Your task to perform on an android device: turn on location history Image 0: 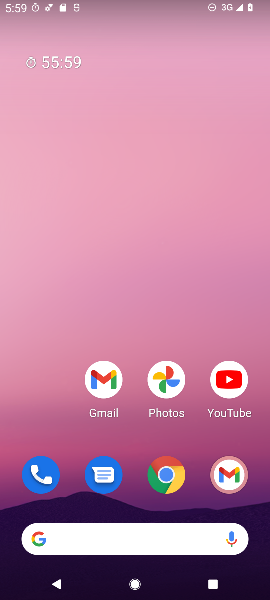
Step 0: press home button
Your task to perform on an android device: turn on location history Image 1: 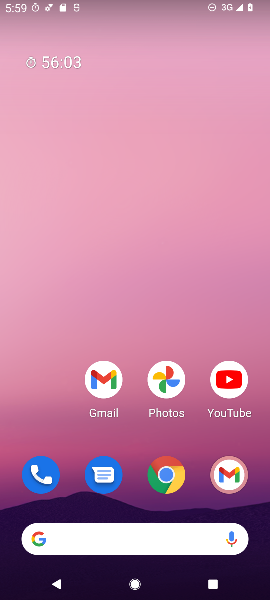
Step 1: drag from (53, 431) to (68, 224)
Your task to perform on an android device: turn on location history Image 2: 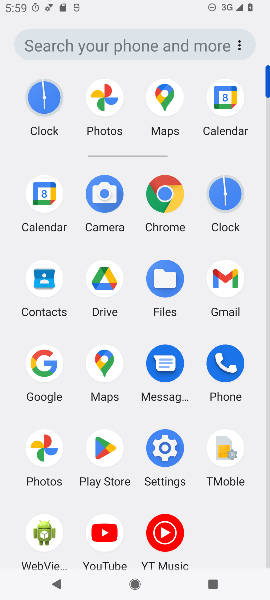
Step 2: click (163, 452)
Your task to perform on an android device: turn on location history Image 3: 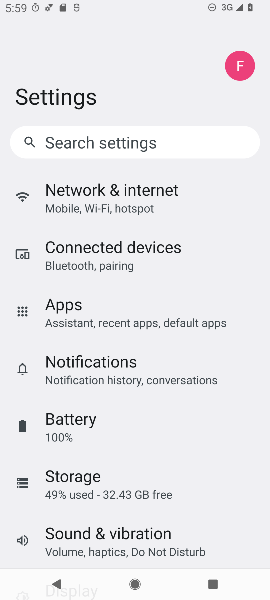
Step 3: drag from (213, 439) to (227, 374)
Your task to perform on an android device: turn on location history Image 4: 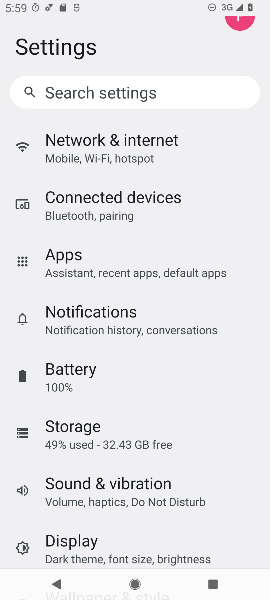
Step 4: drag from (227, 469) to (238, 365)
Your task to perform on an android device: turn on location history Image 5: 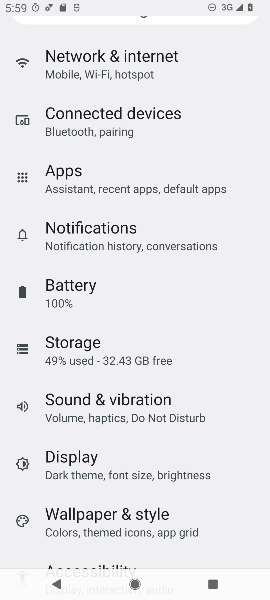
Step 5: drag from (236, 479) to (237, 377)
Your task to perform on an android device: turn on location history Image 6: 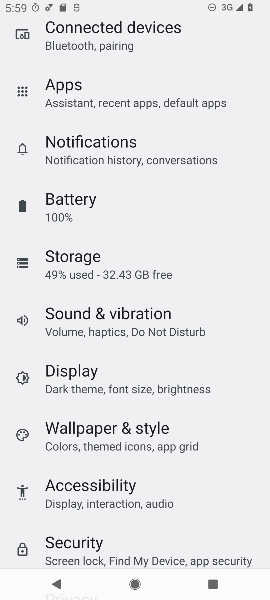
Step 6: drag from (232, 486) to (235, 390)
Your task to perform on an android device: turn on location history Image 7: 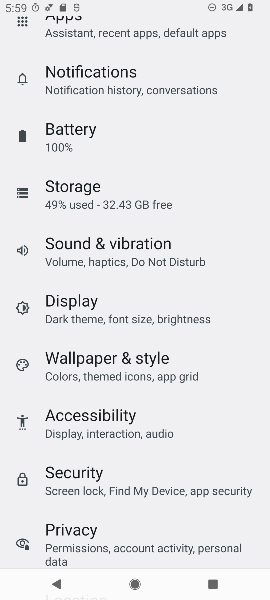
Step 7: drag from (233, 468) to (229, 363)
Your task to perform on an android device: turn on location history Image 8: 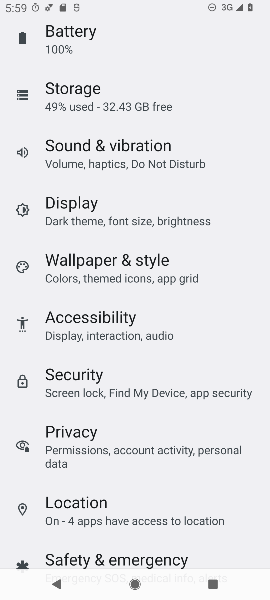
Step 8: drag from (244, 501) to (245, 392)
Your task to perform on an android device: turn on location history Image 9: 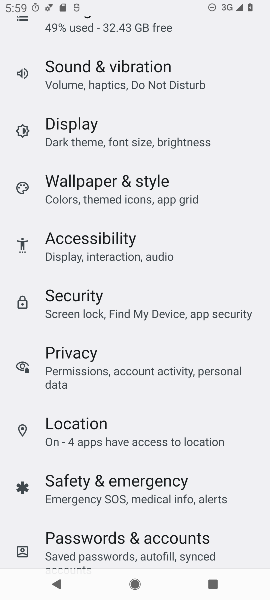
Step 9: drag from (240, 498) to (241, 390)
Your task to perform on an android device: turn on location history Image 10: 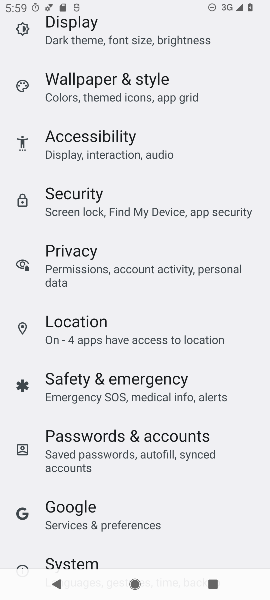
Step 10: drag from (246, 508) to (231, 393)
Your task to perform on an android device: turn on location history Image 11: 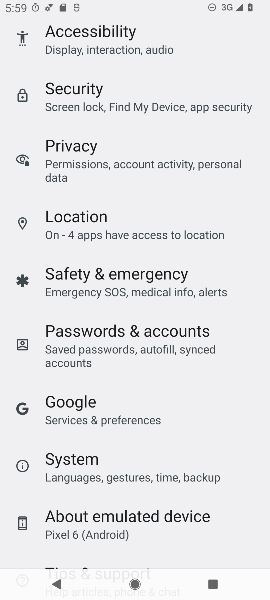
Step 11: drag from (243, 506) to (234, 397)
Your task to perform on an android device: turn on location history Image 12: 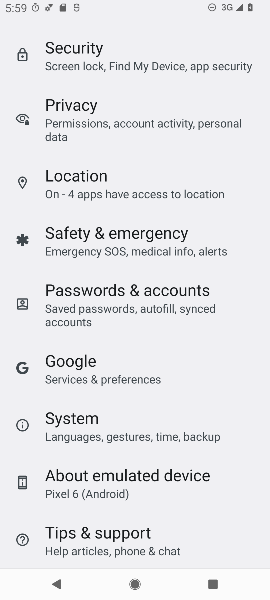
Step 12: drag from (244, 480) to (241, 385)
Your task to perform on an android device: turn on location history Image 13: 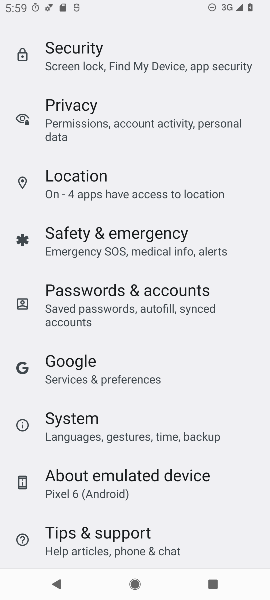
Step 13: click (125, 178)
Your task to perform on an android device: turn on location history Image 14: 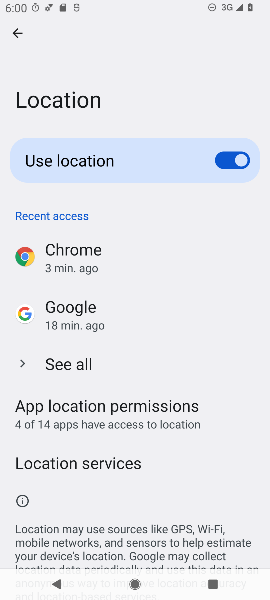
Step 14: click (114, 471)
Your task to perform on an android device: turn on location history Image 15: 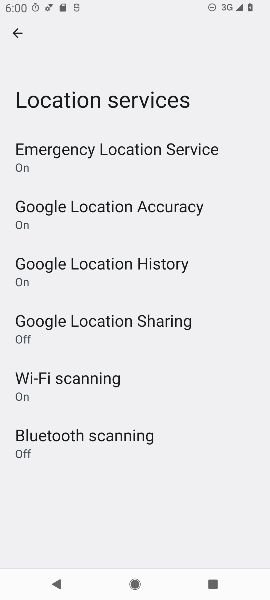
Step 15: task complete